Your task to perform on an android device: What time is it? Image 0: 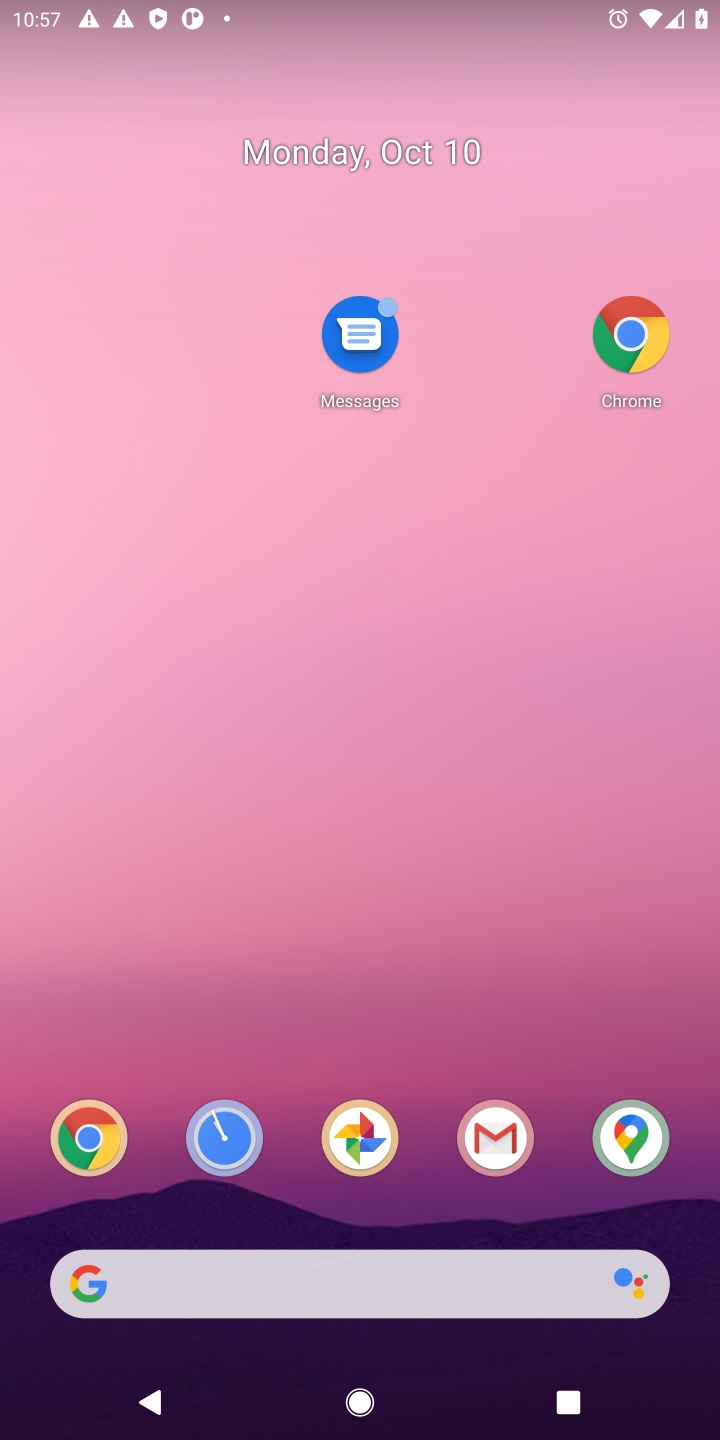
Step 0: click (648, 359)
Your task to perform on an android device: What time is it? Image 1: 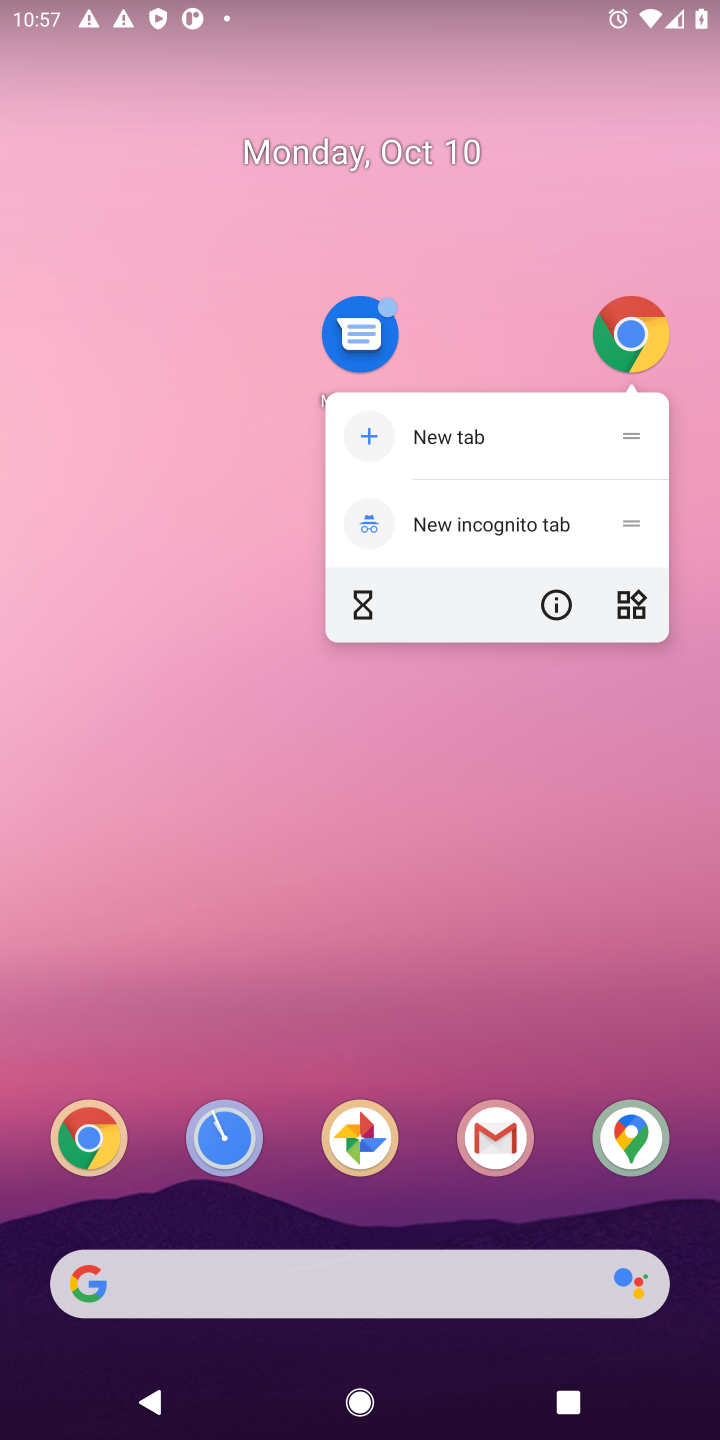
Step 1: click (635, 331)
Your task to perform on an android device: What time is it? Image 2: 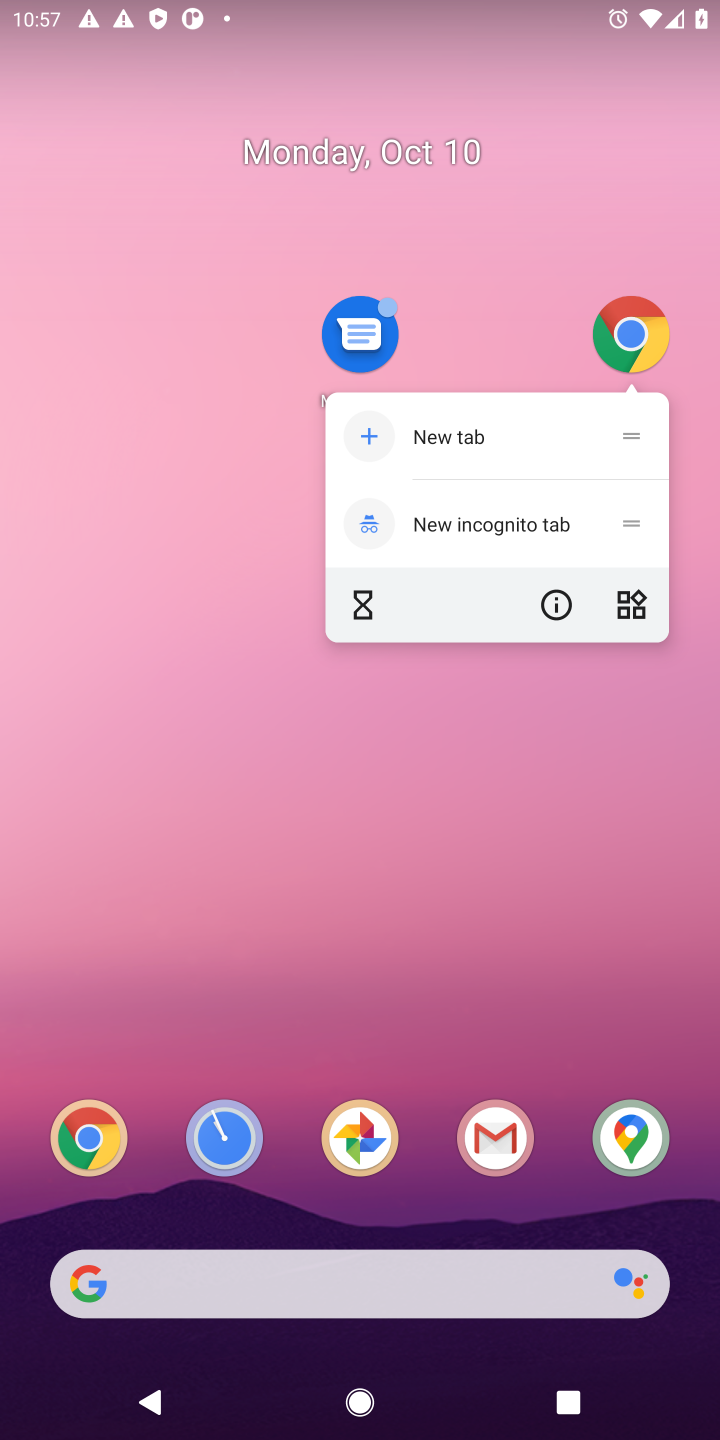
Step 2: click (631, 334)
Your task to perform on an android device: What time is it? Image 3: 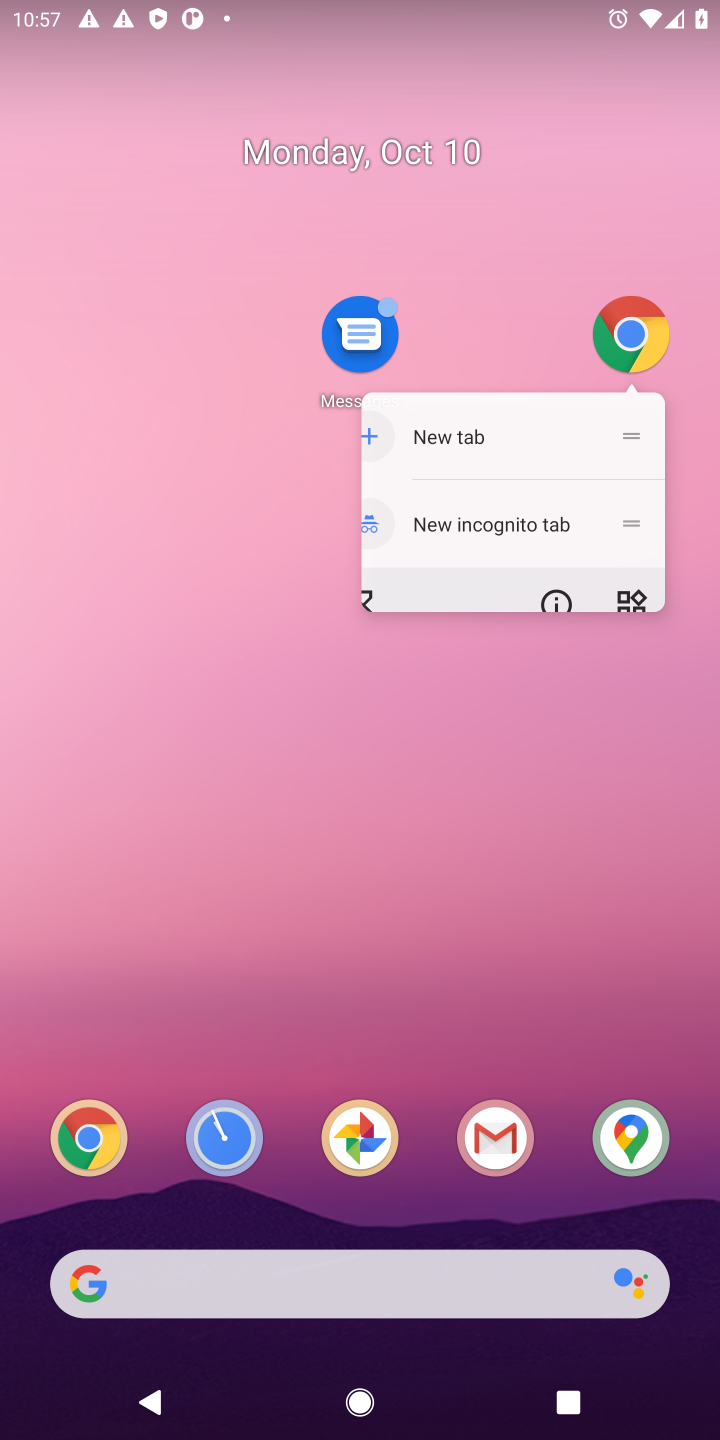
Step 3: click (631, 334)
Your task to perform on an android device: What time is it? Image 4: 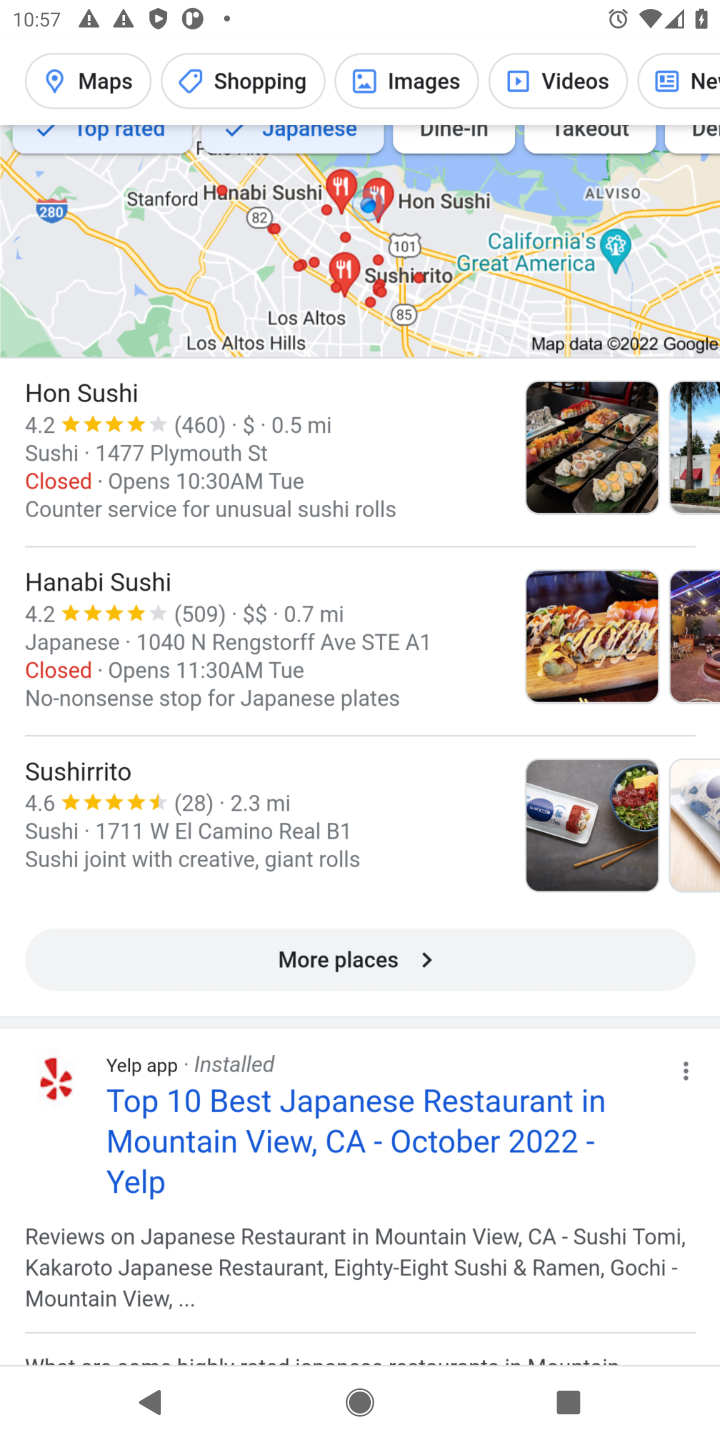
Step 4: click (647, 332)
Your task to perform on an android device: What time is it? Image 5: 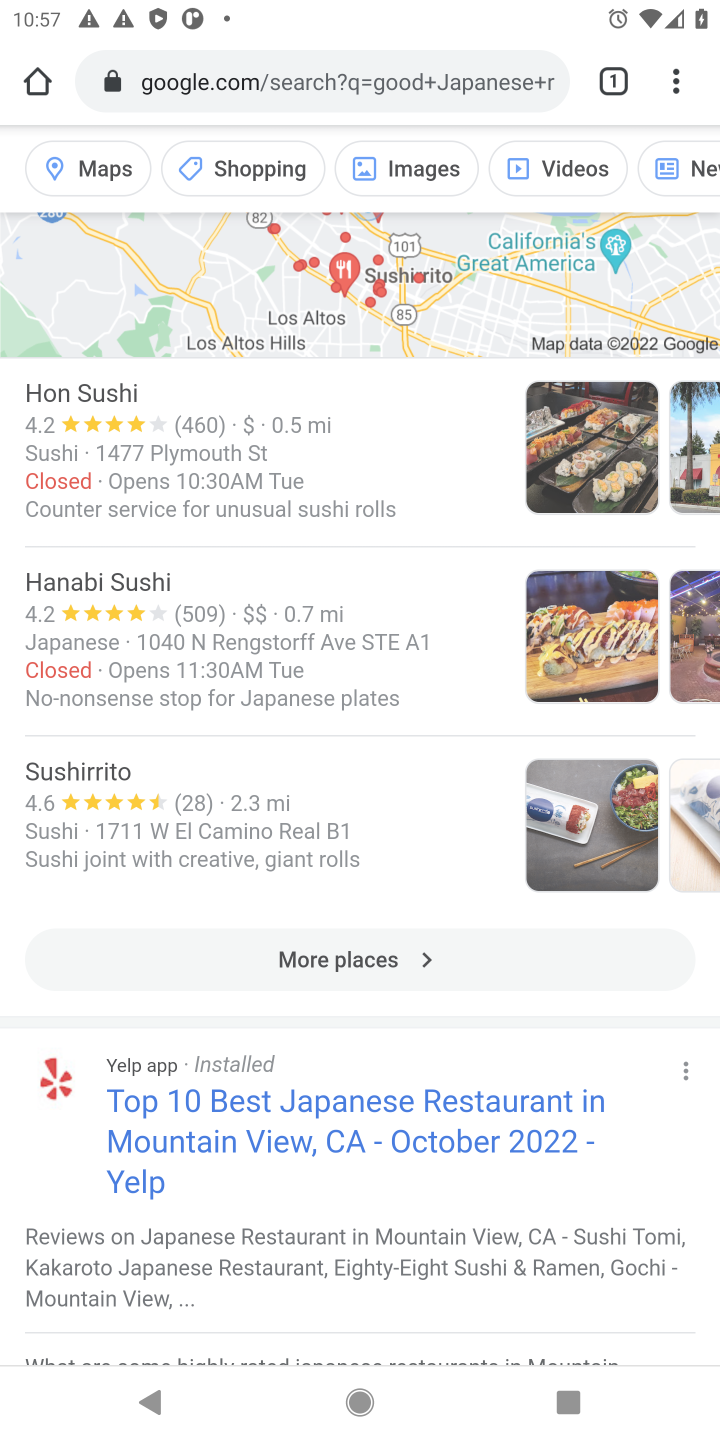
Step 5: click (371, 98)
Your task to perform on an android device: What time is it? Image 6: 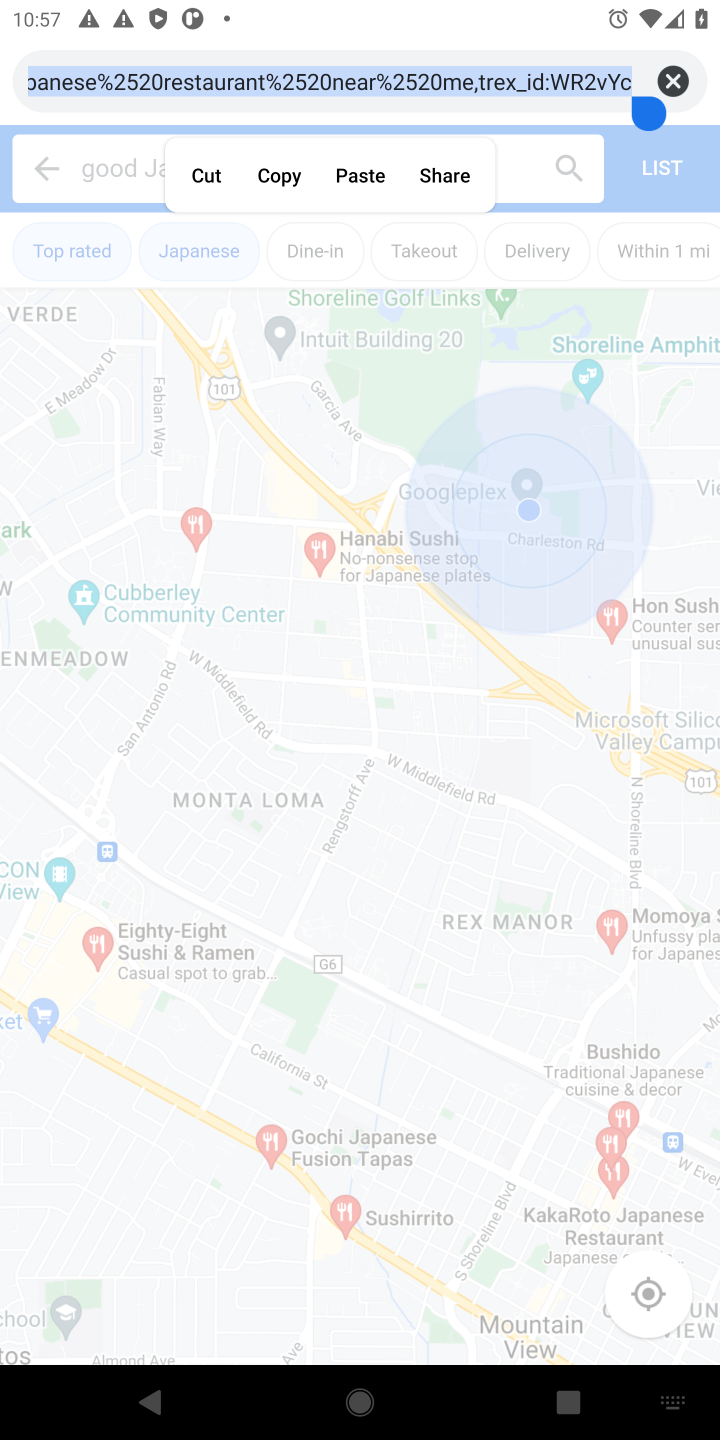
Step 6: type "what is the time"
Your task to perform on an android device: What time is it? Image 7: 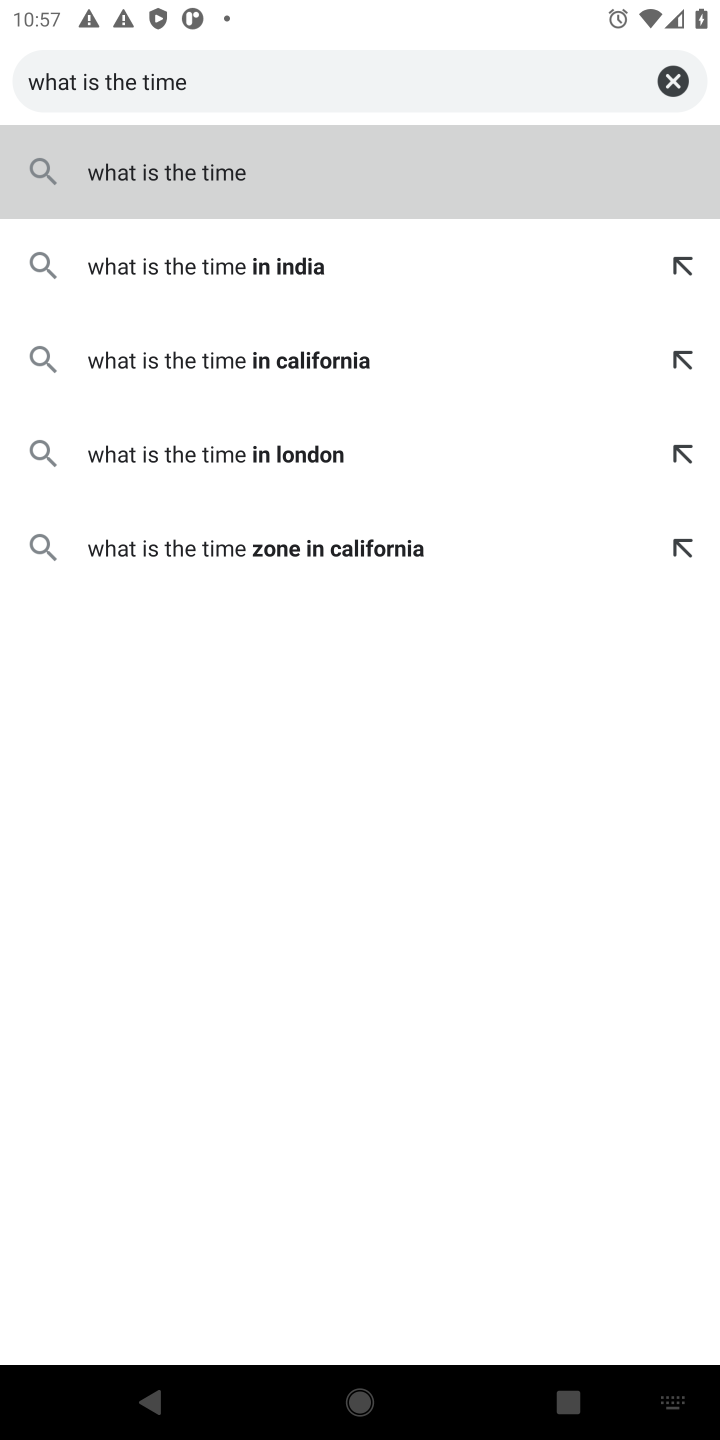
Step 7: type ""
Your task to perform on an android device: What time is it? Image 8: 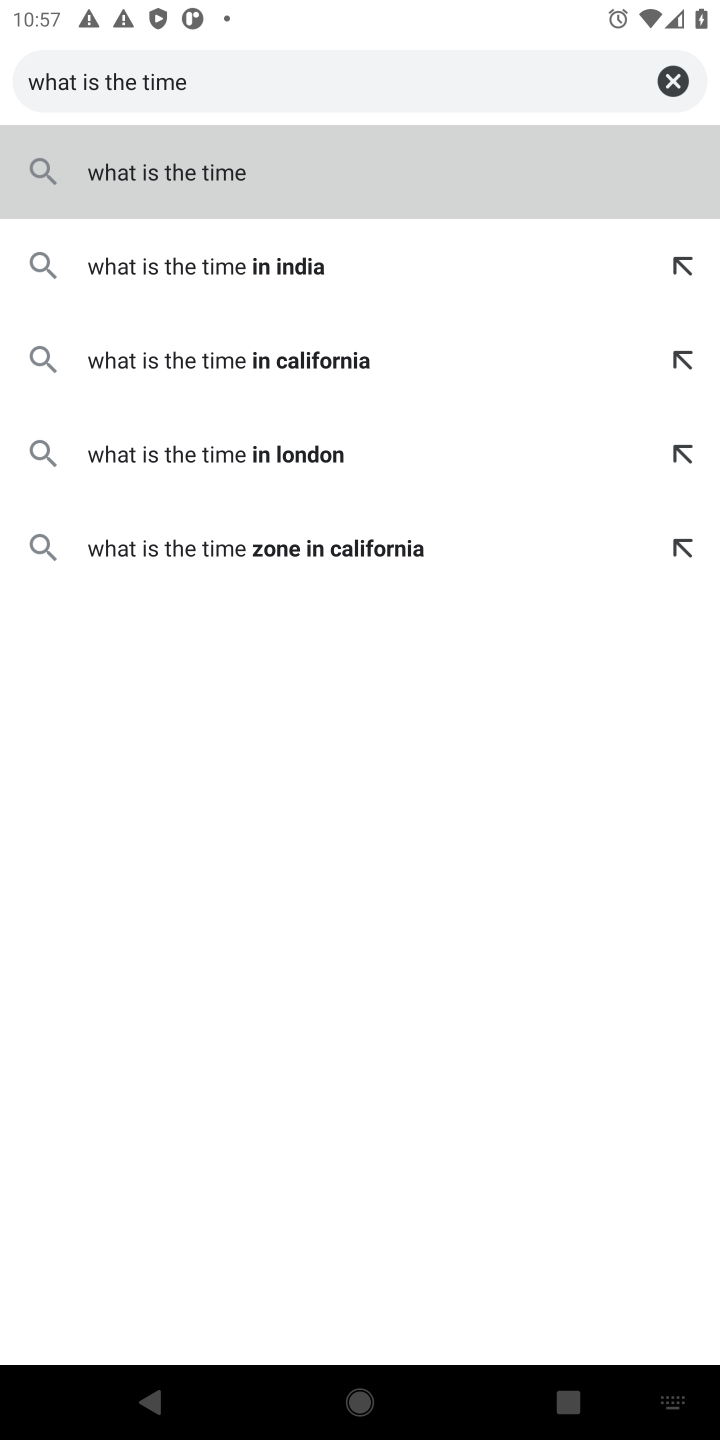
Step 8: press enter
Your task to perform on an android device: What time is it? Image 9: 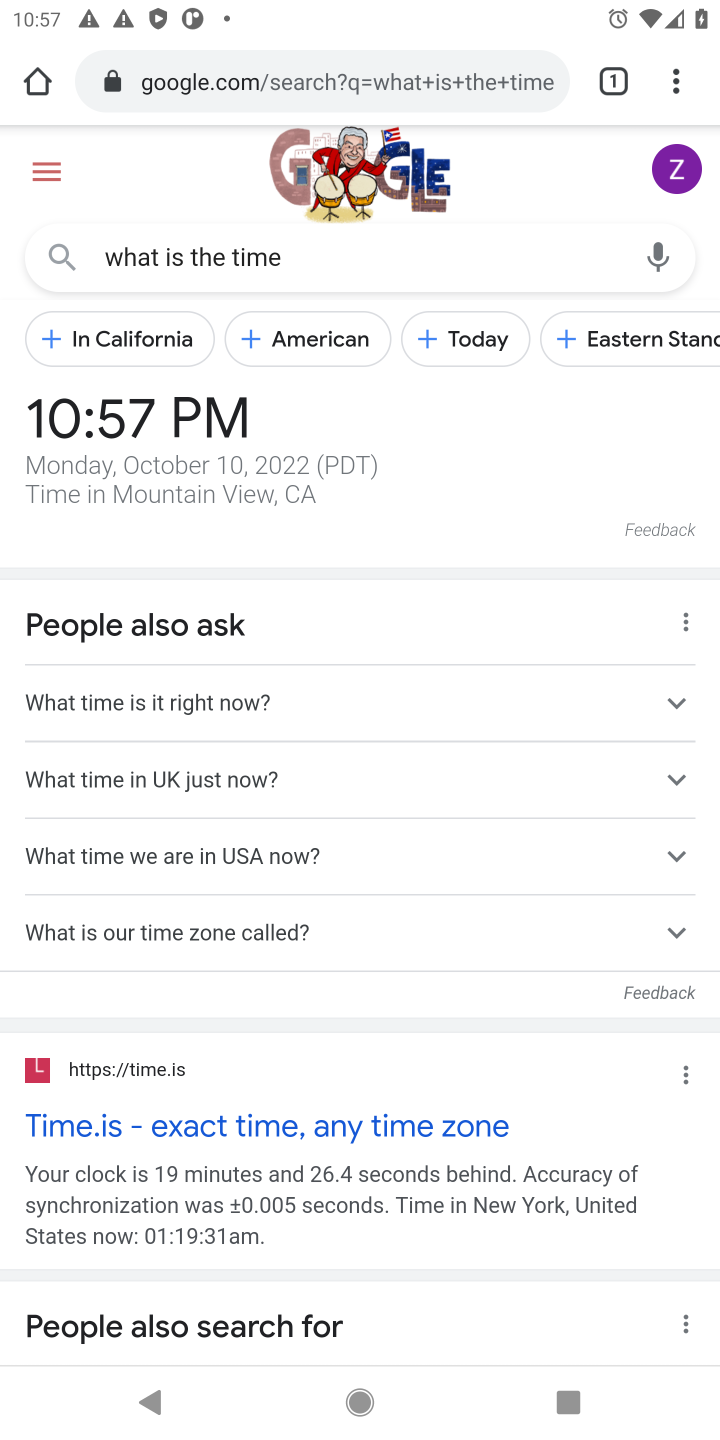
Step 9: task complete